Your task to perform on an android device: Go to accessibility settings Image 0: 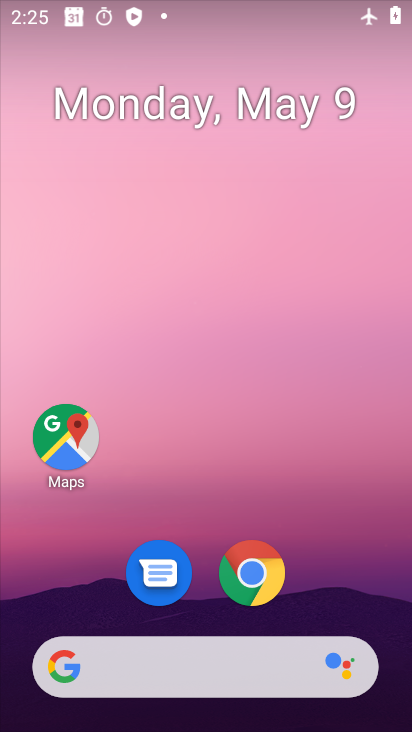
Step 0: drag from (336, 559) to (234, 50)
Your task to perform on an android device: Go to accessibility settings Image 1: 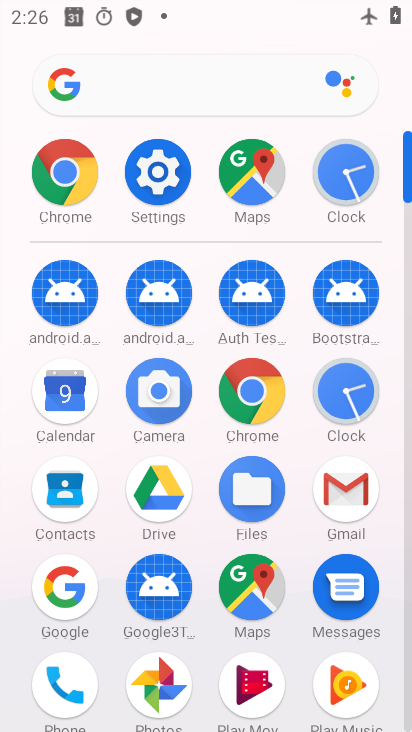
Step 1: click (166, 176)
Your task to perform on an android device: Go to accessibility settings Image 2: 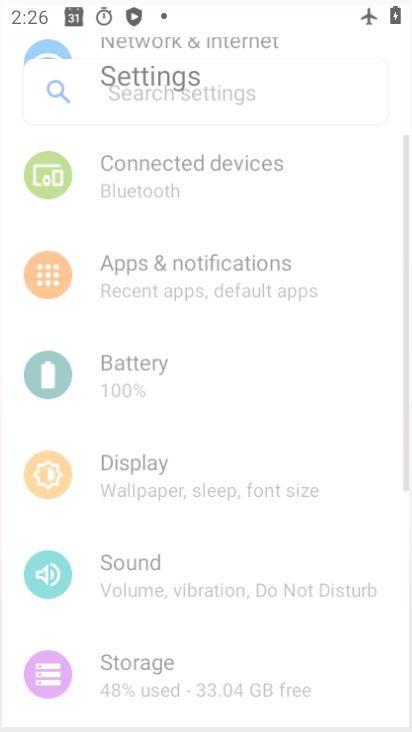
Step 2: click (166, 176)
Your task to perform on an android device: Go to accessibility settings Image 3: 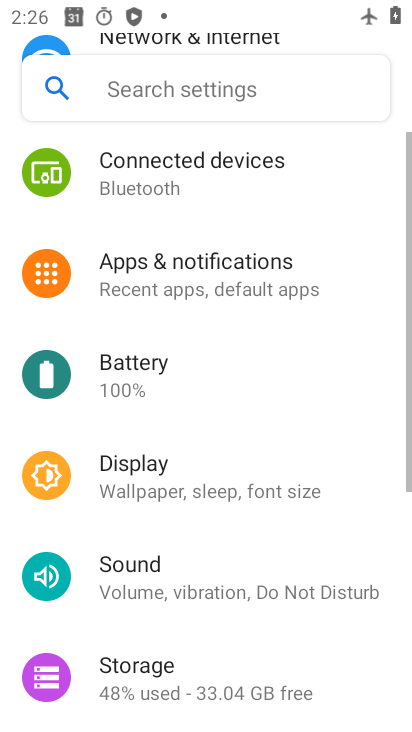
Step 3: click (166, 176)
Your task to perform on an android device: Go to accessibility settings Image 4: 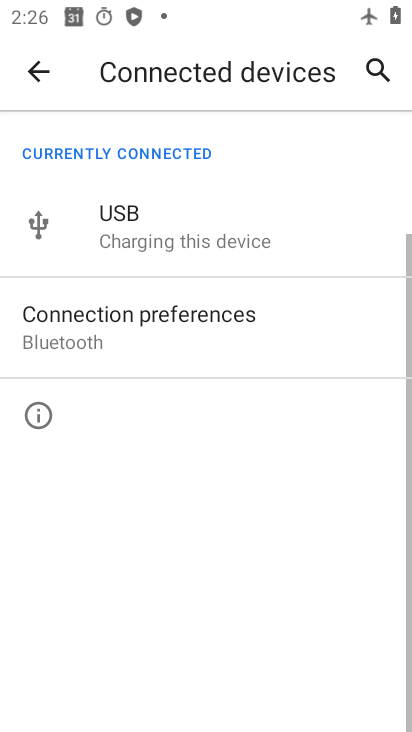
Step 4: click (40, 62)
Your task to perform on an android device: Go to accessibility settings Image 5: 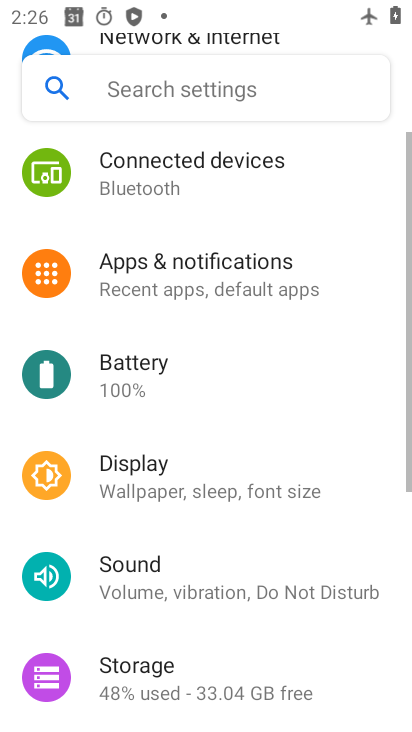
Step 5: drag from (215, 599) to (258, 131)
Your task to perform on an android device: Go to accessibility settings Image 6: 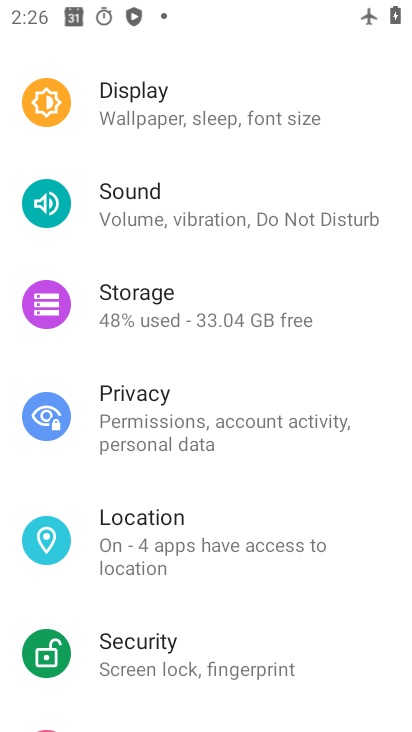
Step 6: drag from (172, 573) to (142, 189)
Your task to perform on an android device: Go to accessibility settings Image 7: 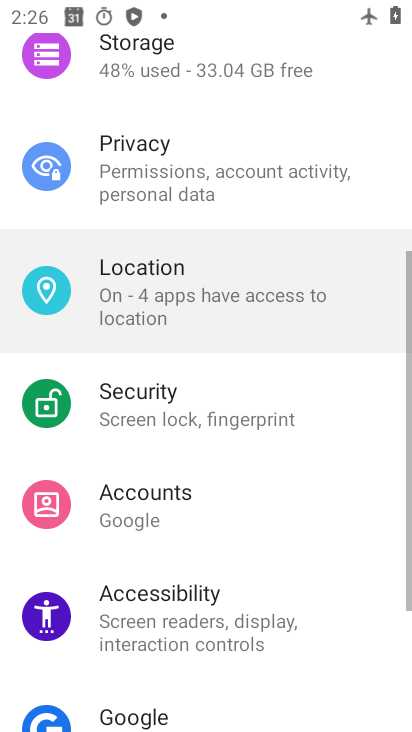
Step 7: drag from (173, 462) to (194, 137)
Your task to perform on an android device: Go to accessibility settings Image 8: 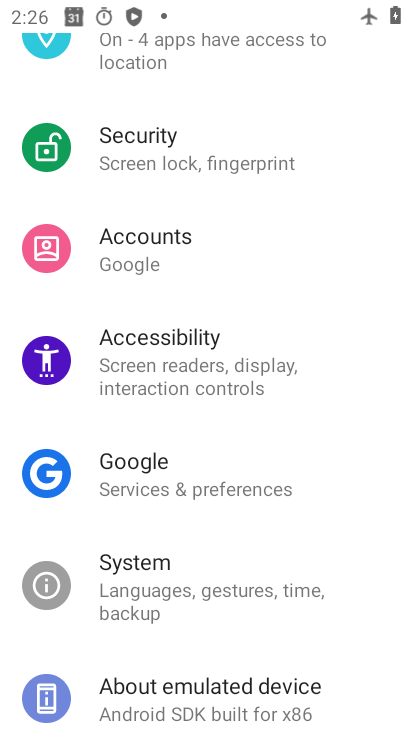
Step 8: click (162, 354)
Your task to perform on an android device: Go to accessibility settings Image 9: 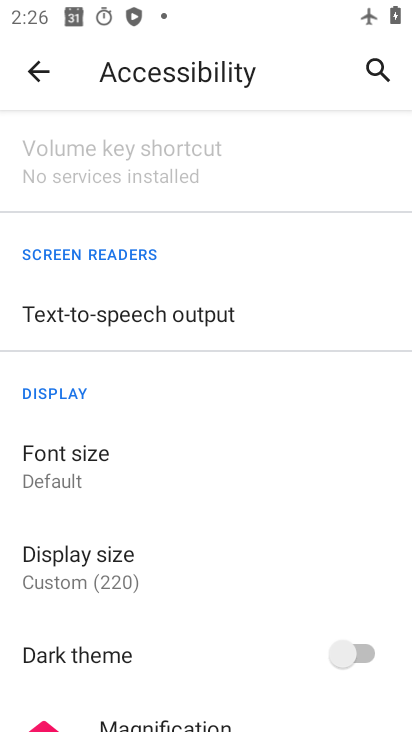
Step 9: task complete